Your task to perform on an android device: refresh tabs in the chrome app Image 0: 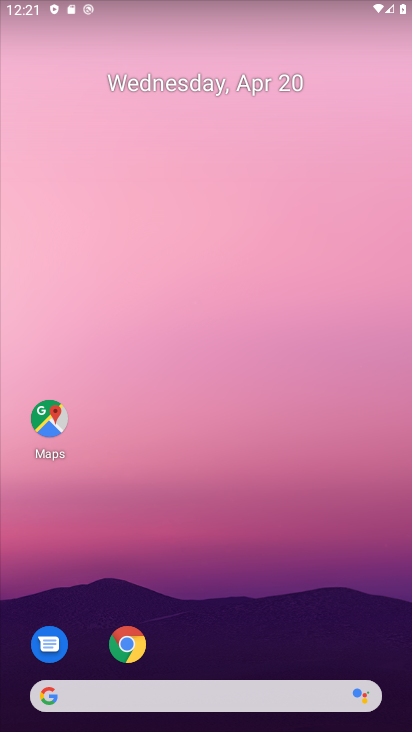
Step 0: click (125, 645)
Your task to perform on an android device: refresh tabs in the chrome app Image 1: 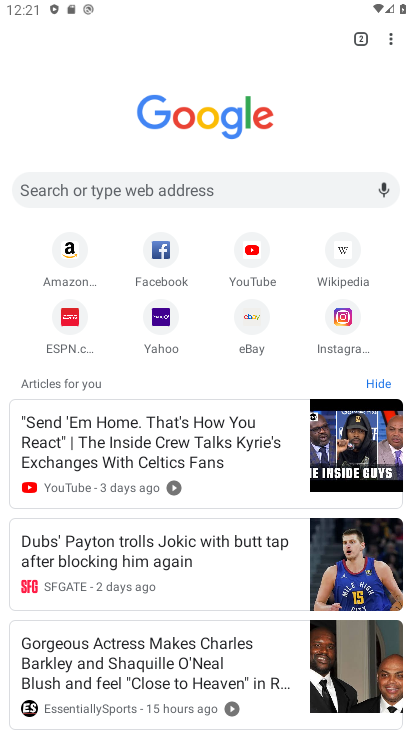
Step 1: click (392, 36)
Your task to perform on an android device: refresh tabs in the chrome app Image 2: 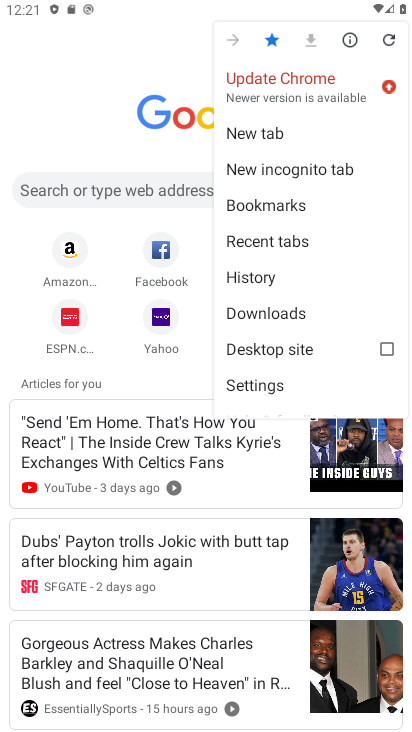
Step 2: click (391, 35)
Your task to perform on an android device: refresh tabs in the chrome app Image 3: 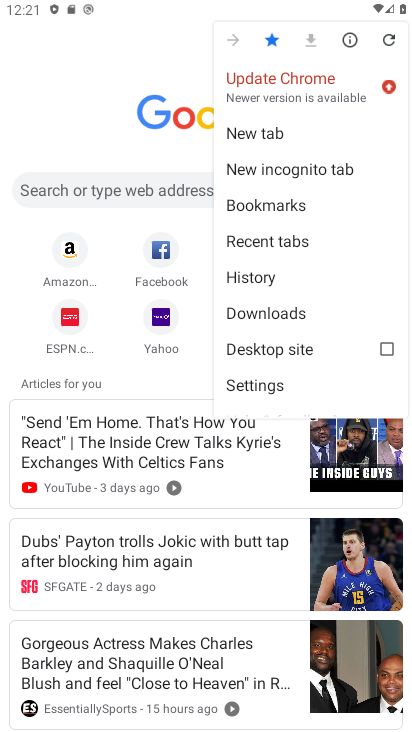
Step 3: click (389, 35)
Your task to perform on an android device: refresh tabs in the chrome app Image 4: 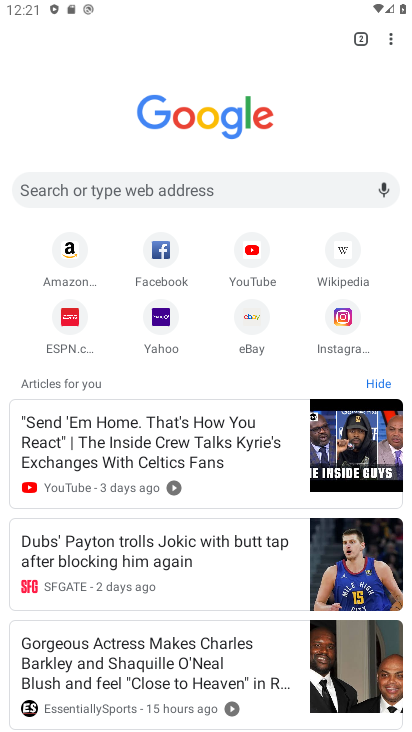
Step 4: task complete